Your task to perform on an android device: Open Google Maps Image 0: 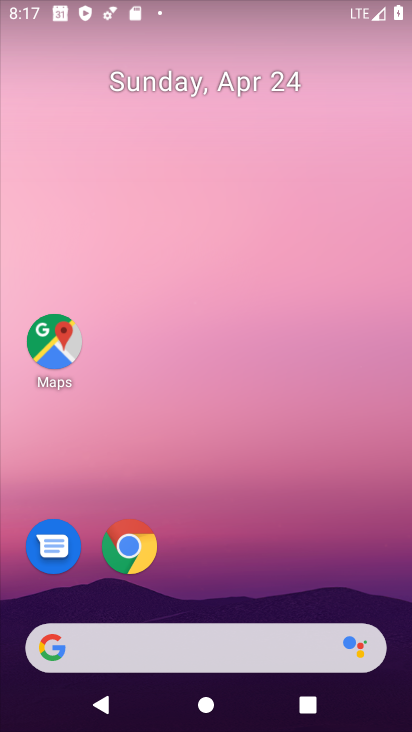
Step 0: click (54, 320)
Your task to perform on an android device: Open Google Maps Image 1: 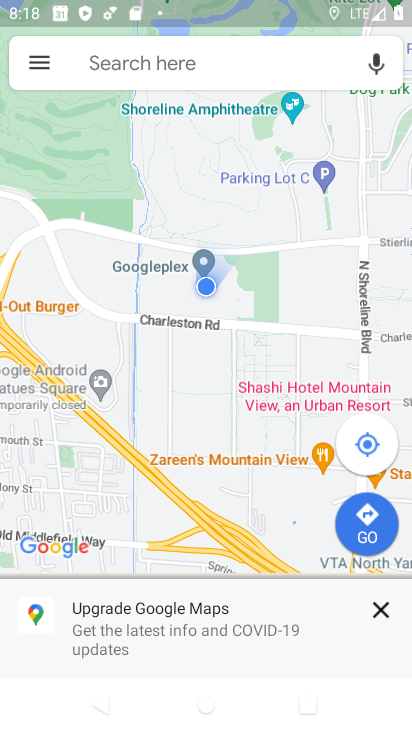
Step 1: task complete